Your task to perform on an android device: Find a nice sofa on eBay Image 0: 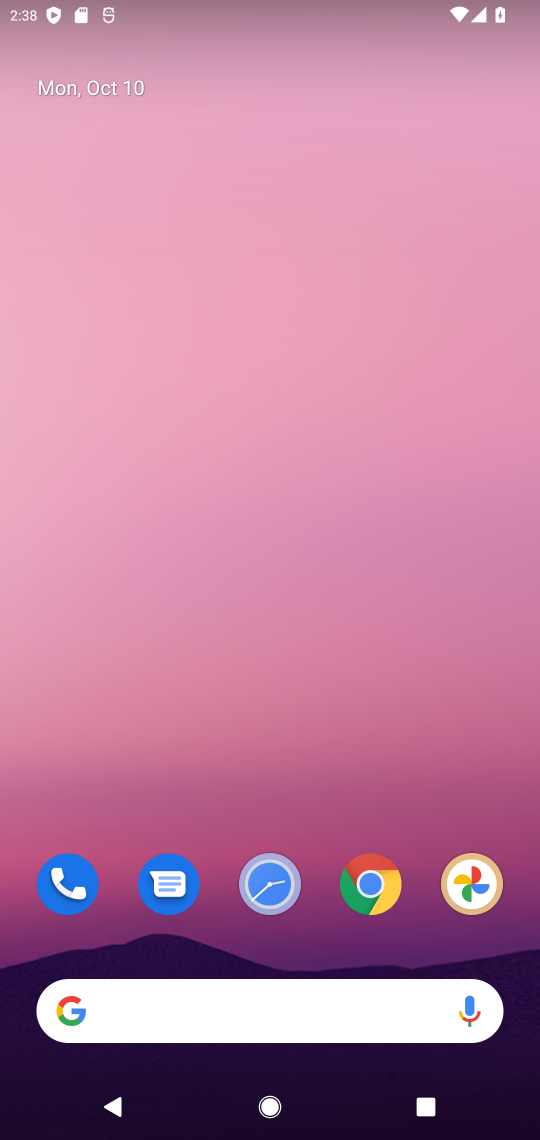
Step 0: click (297, 1009)
Your task to perform on an android device: Find a nice sofa on eBay Image 1: 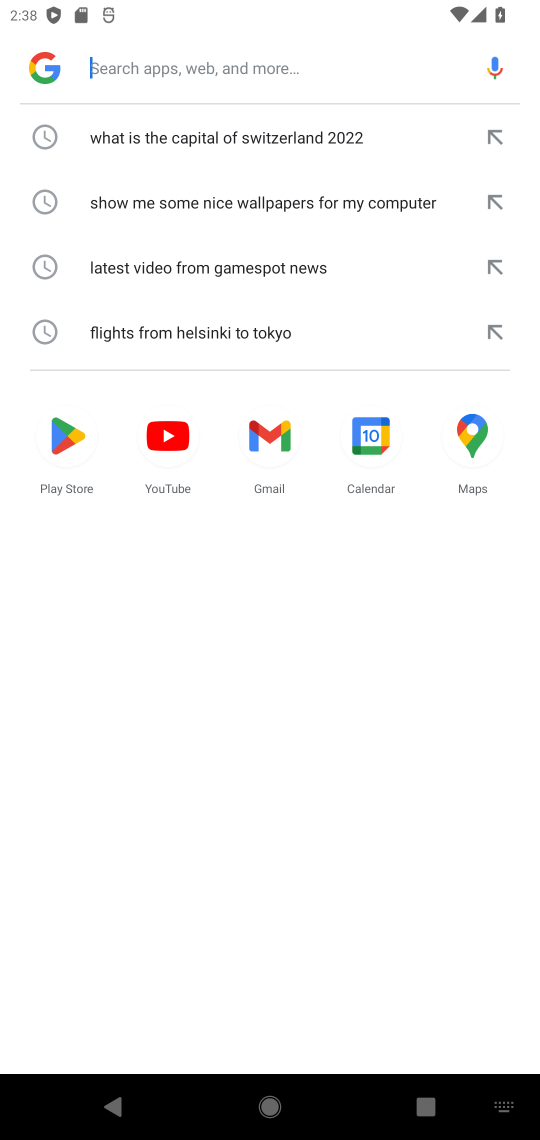
Step 1: type " nice sofa on eBay"
Your task to perform on an android device: Find a nice sofa on eBay Image 2: 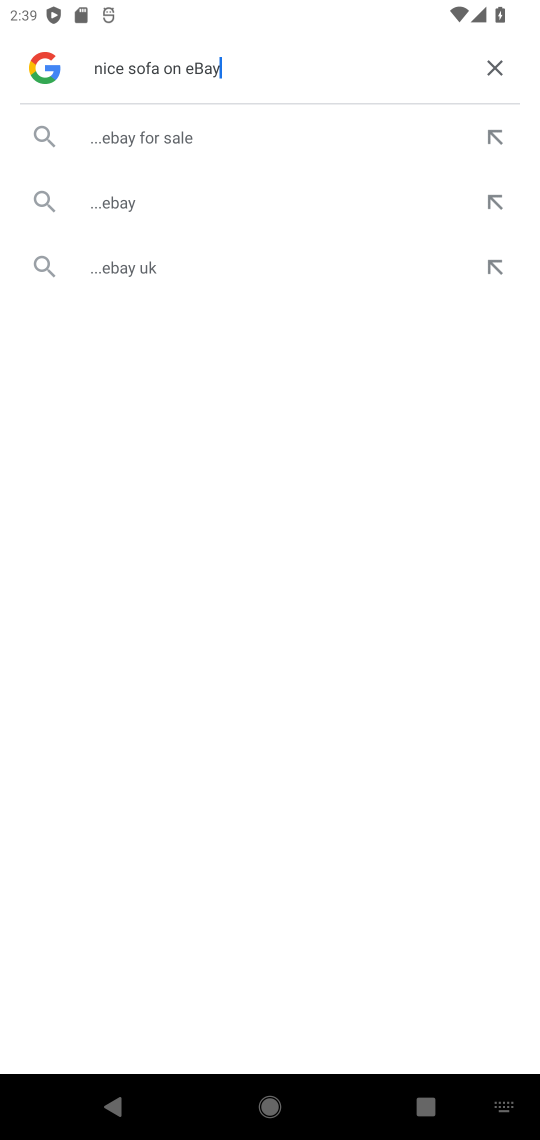
Step 2: click (114, 196)
Your task to perform on an android device: Find a nice sofa on eBay Image 3: 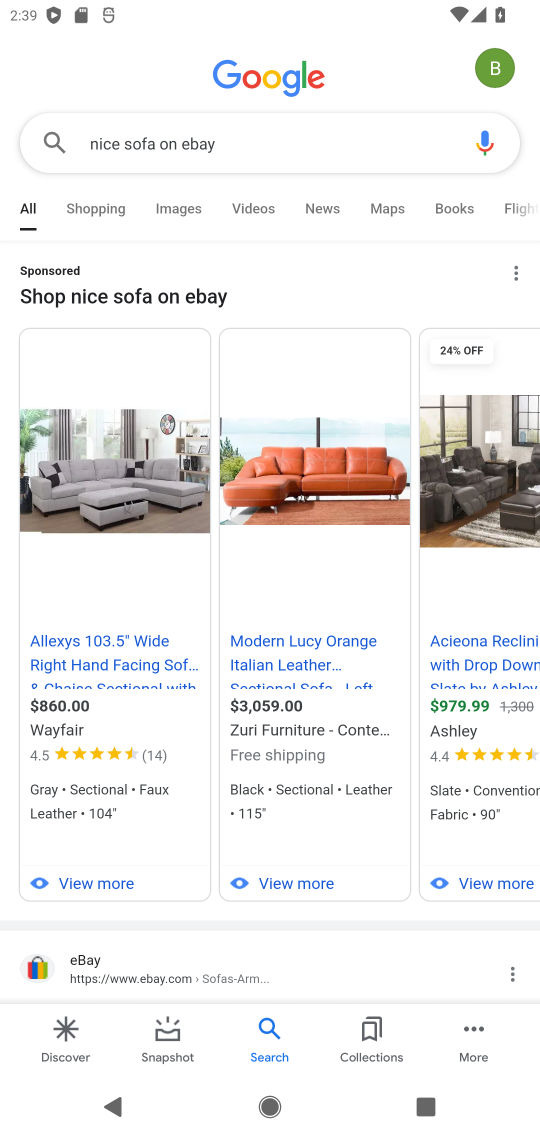
Step 3: task complete